Your task to perform on an android device: Open the calendar and show me this week's events? Image 0: 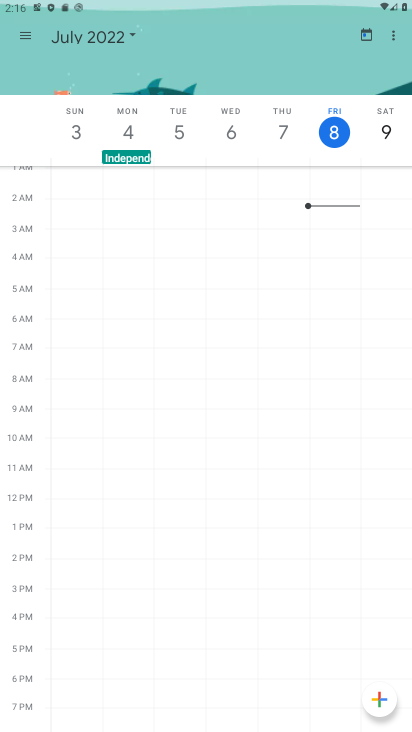
Step 0: task complete